Your task to perform on an android device: Go to Maps Image 0: 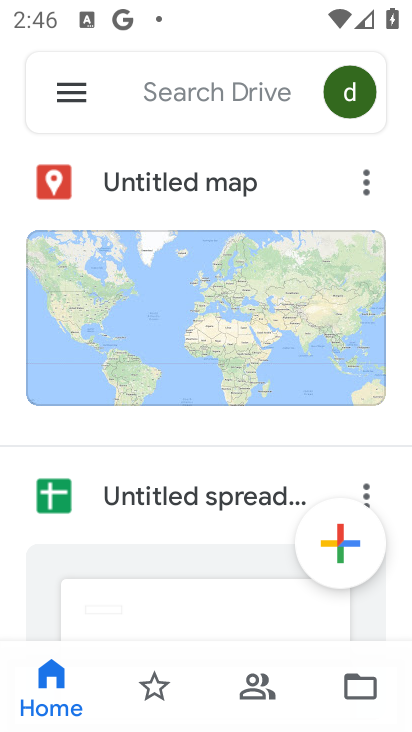
Step 0: press home button
Your task to perform on an android device: Go to Maps Image 1: 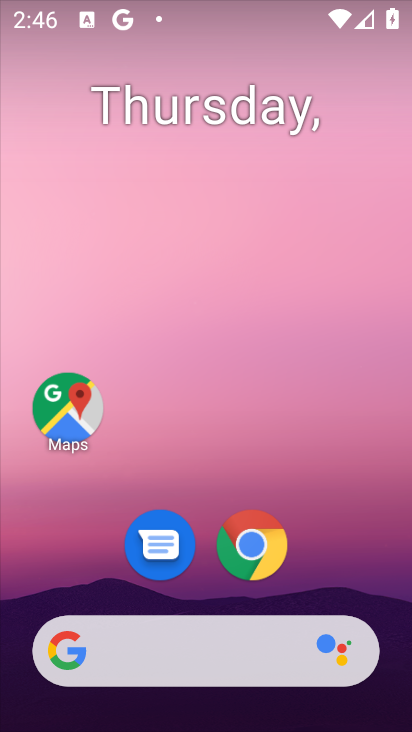
Step 1: click (47, 411)
Your task to perform on an android device: Go to Maps Image 2: 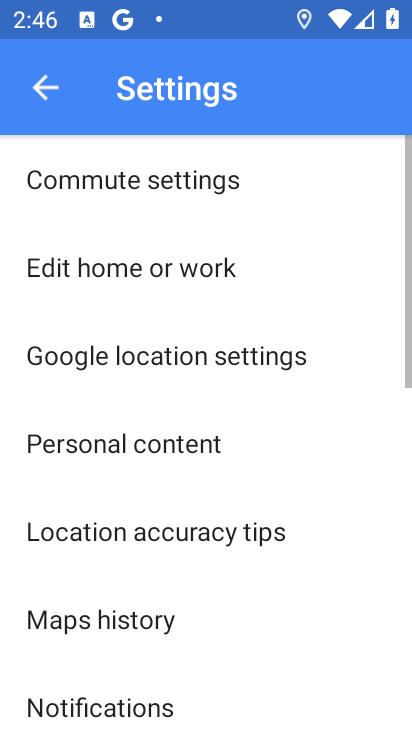
Step 2: click (44, 93)
Your task to perform on an android device: Go to Maps Image 3: 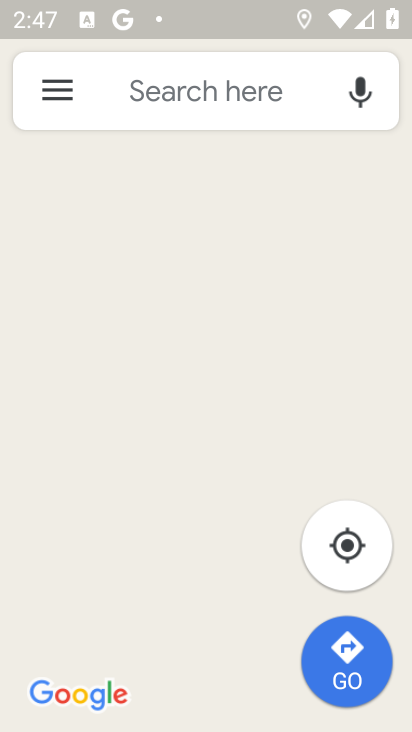
Step 3: task complete